Your task to perform on an android device: When is my next appointment? Image 0: 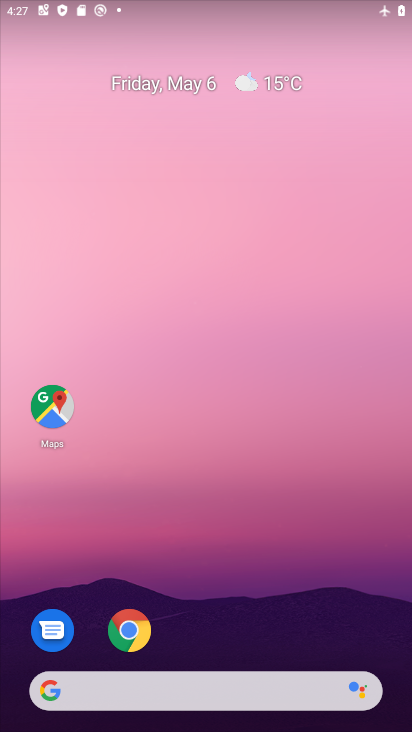
Step 0: drag from (239, 572) to (307, 142)
Your task to perform on an android device: When is my next appointment? Image 1: 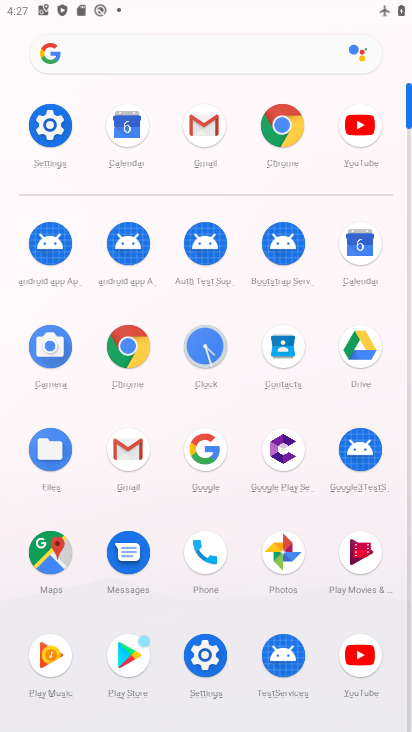
Step 1: click (365, 242)
Your task to perform on an android device: When is my next appointment? Image 2: 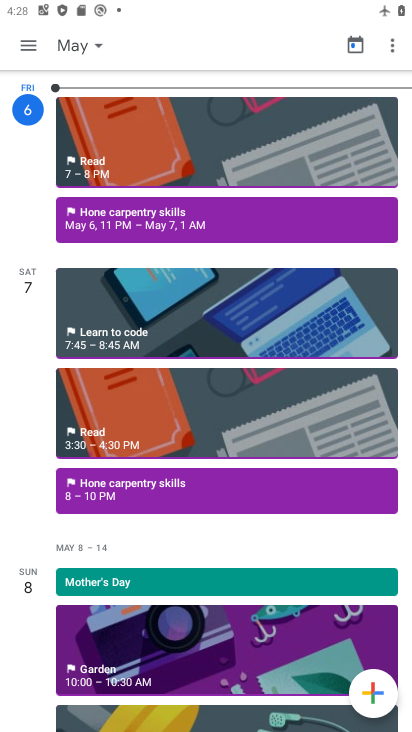
Step 2: drag from (186, 712) to (261, 274)
Your task to perform on an android device: When is my next appointment? Image 3: 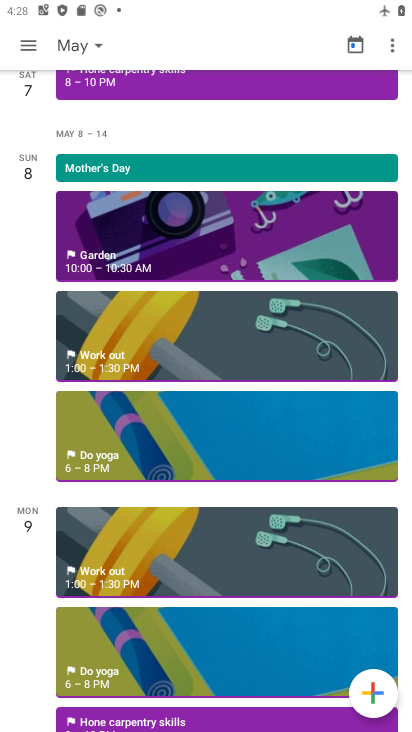
Step 3: drag from (176, 568) to (309, 78)
Your task to perform on an android device: When is my next appointment? Image 4: 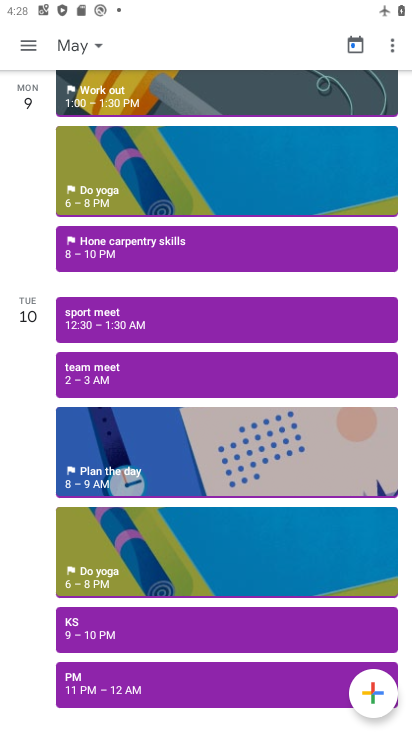
Step 4: click (110, 322)
Your task to perform on an android device: When is my next appointment? Image 5: 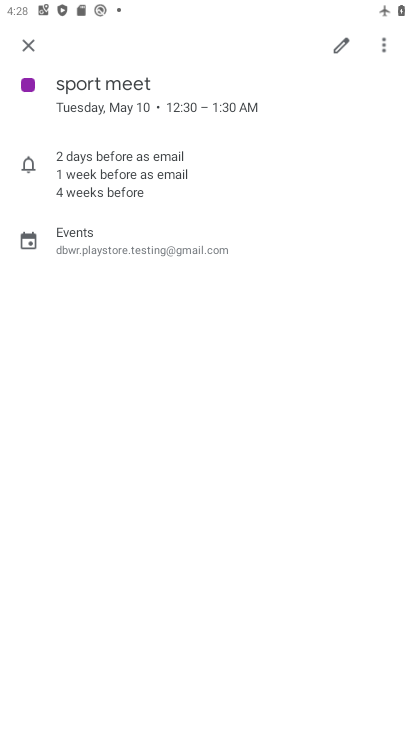
Step 5: task complete